Your task to perform on an android device: change text size in settings app Image 0: 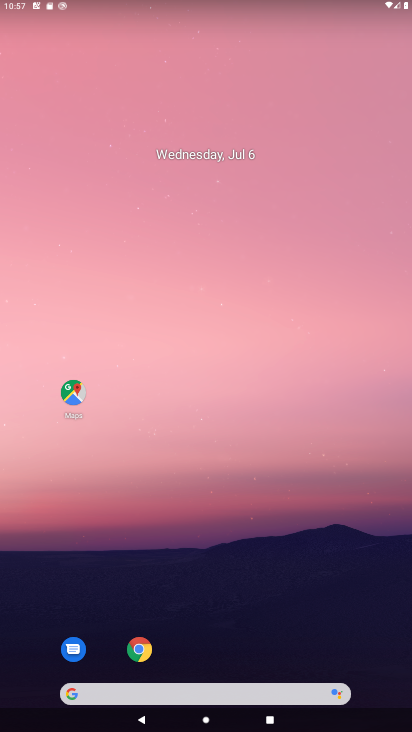
Step 0: drag from (285, 622) to (287, 139)
Your task to perform on an android device: change text size in settings app Image 1: 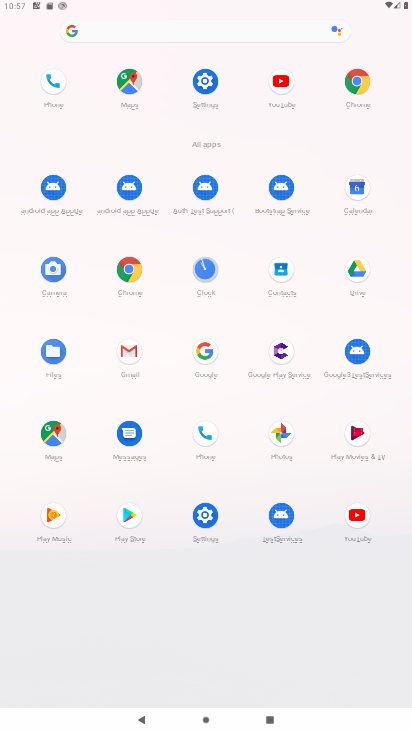
Step 1: click (205, 70)
Your task to perform on an android device: change text size in settings app Image 2: 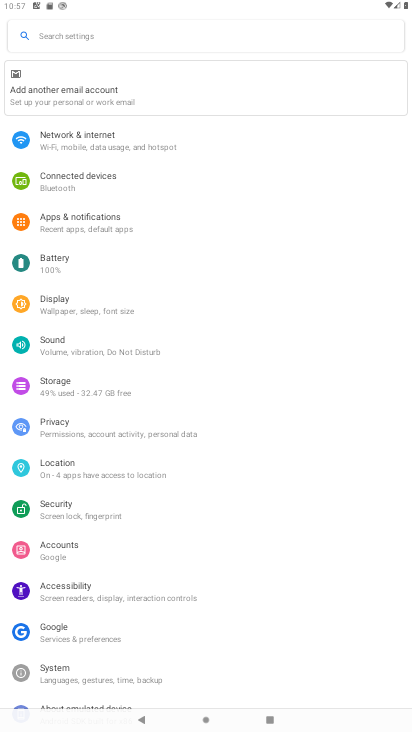
Step 2: drag from (113, 679) to (160, 359)
Your task to perform on an android device: change text size in settings app Image 3: 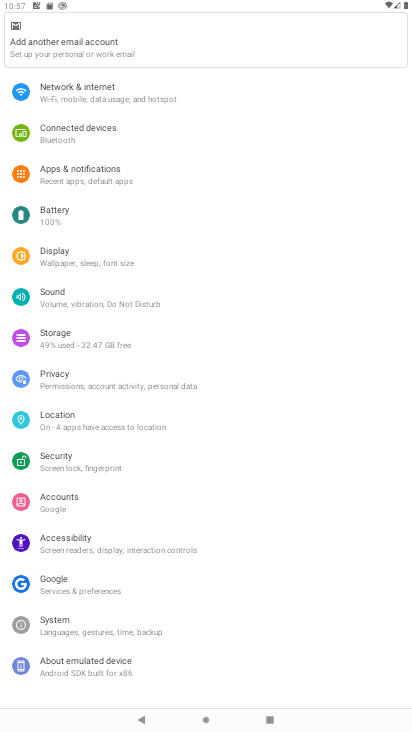
Step 3: click (123, 556)
Your task to perform on an android device: change text size in settings app Image 4: 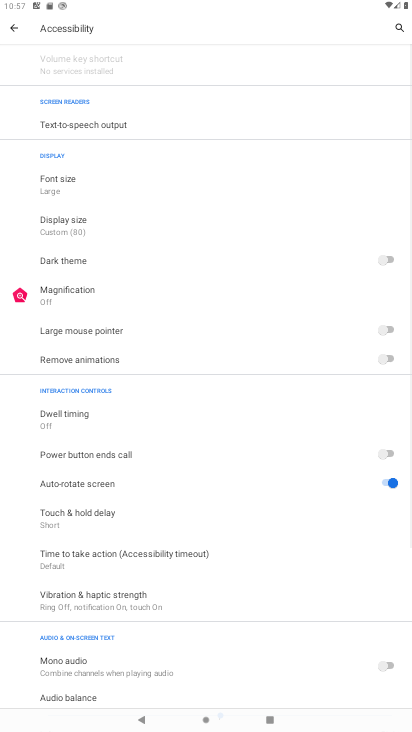
Step 4: click (75, 183)
Your task to perform on an android device: change text size in settings app Image 5: 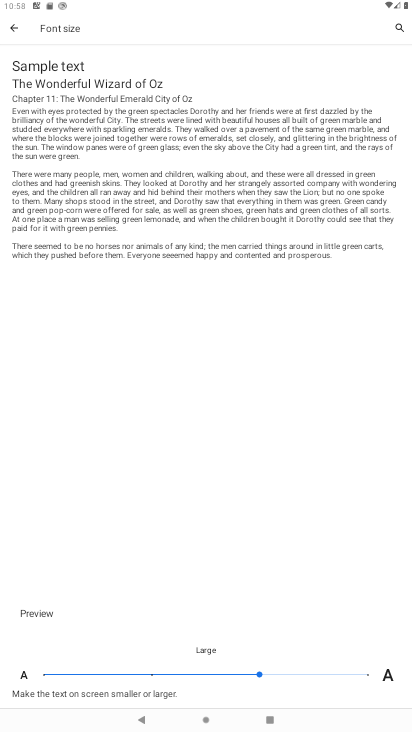
Step 5: click (153, 671)
Your task to perform on an android device: change text size in settings app Image 6: 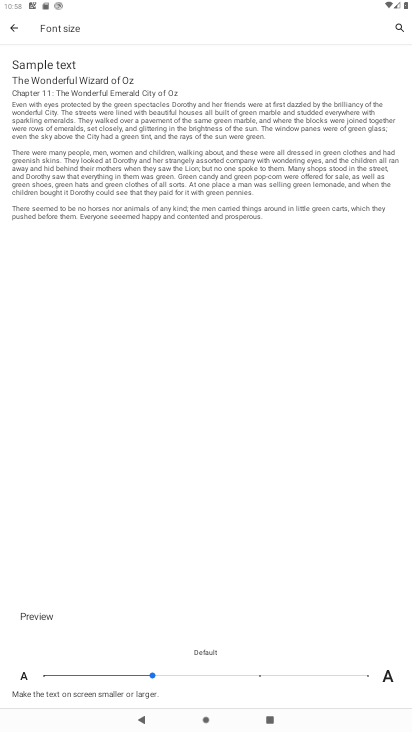
Step 6: task complete